Your task to perform on an android device: install app "HBO Max: Stream TV & Movies" Image 0: 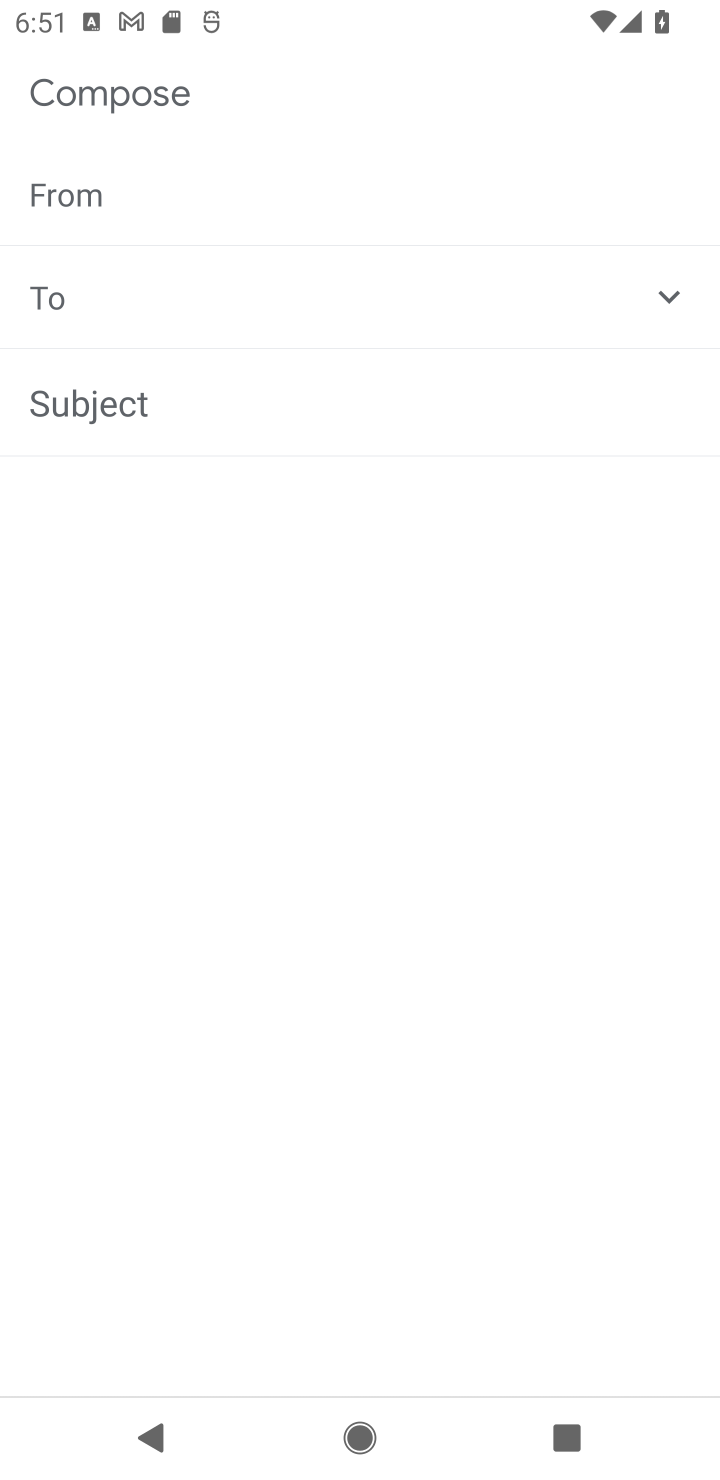
Step 0: press home button
Your task to perform on an android device: install app "HBO Max: Stream TV & Movies" Image 1: 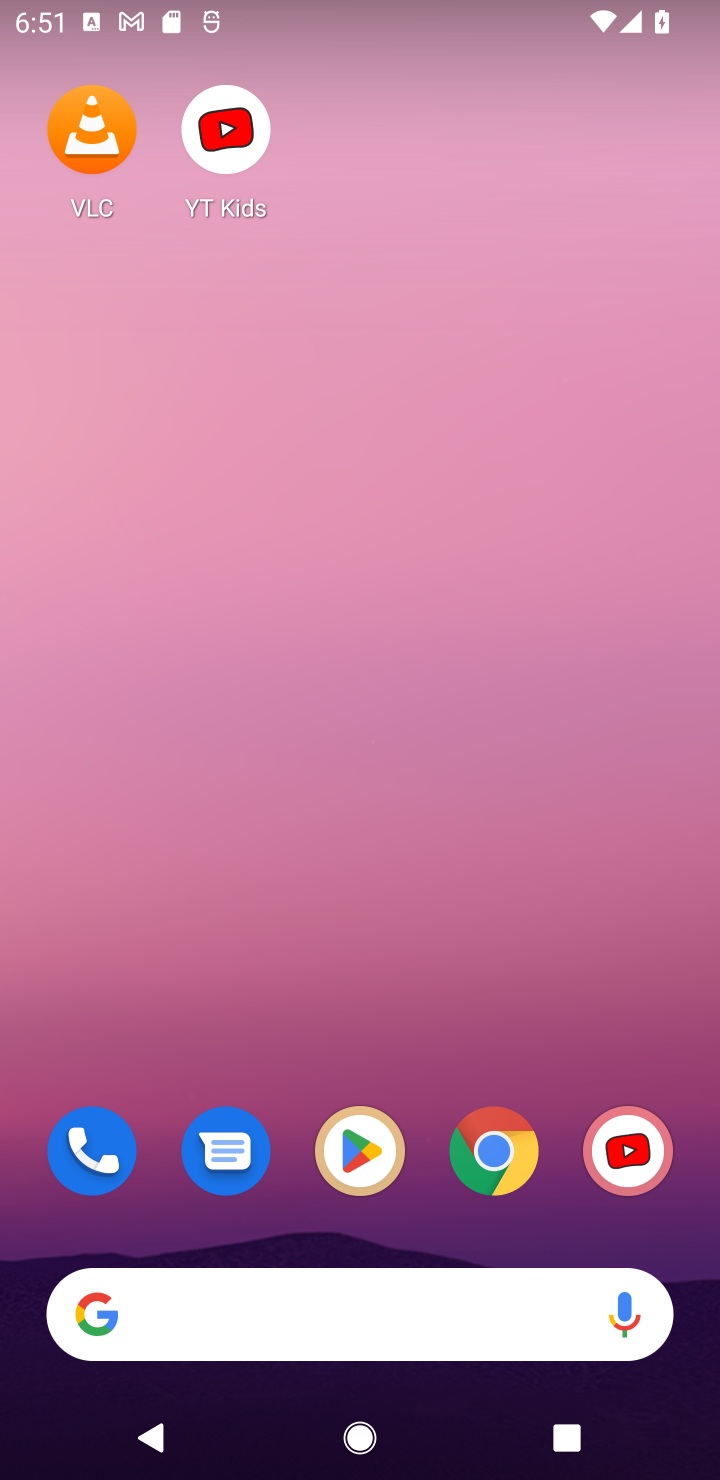
Step 1: press home button
Your task to perform on an android device: install app "HBO Max: Stream TV & Movies" Image 2: 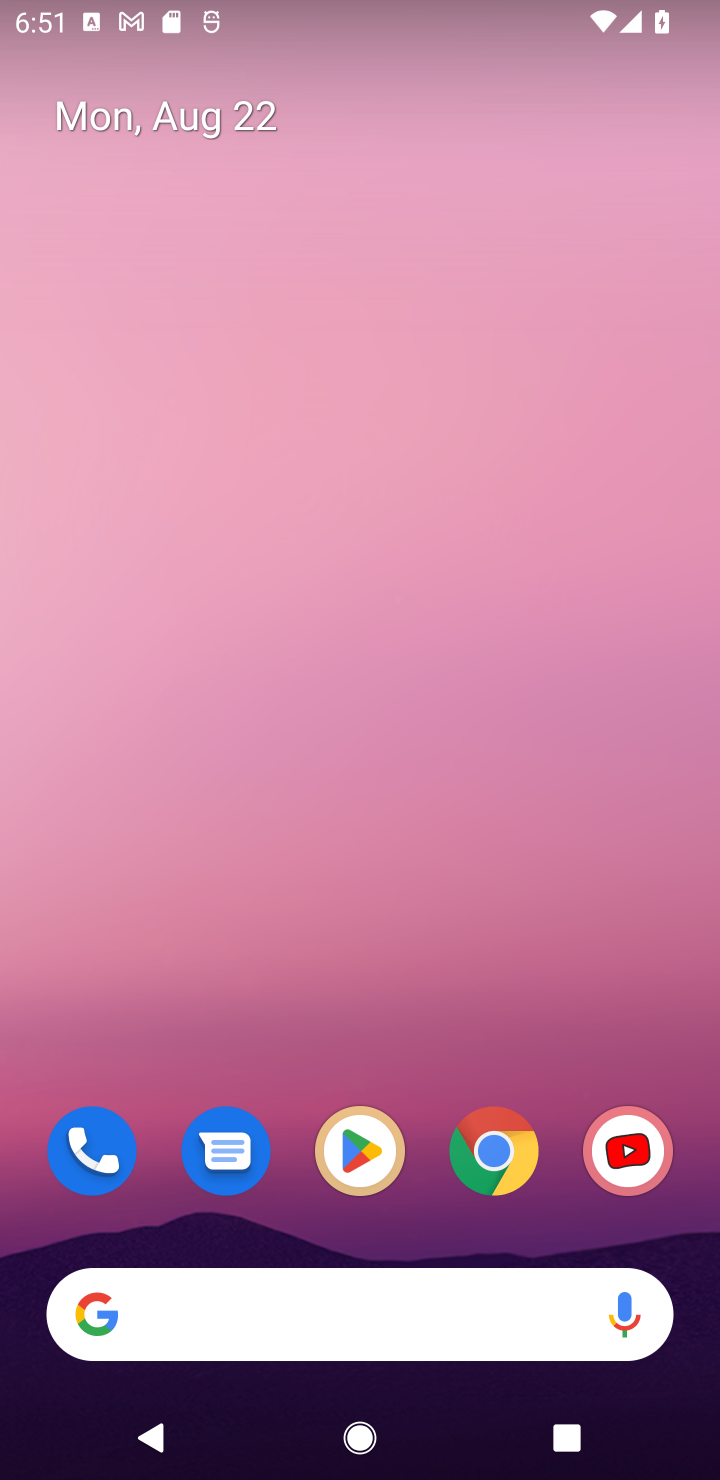
Step 2: click (358, 1138)
Your task to perform on an android device: install app "HBO Max: Stream TV & Movies" Image 3: 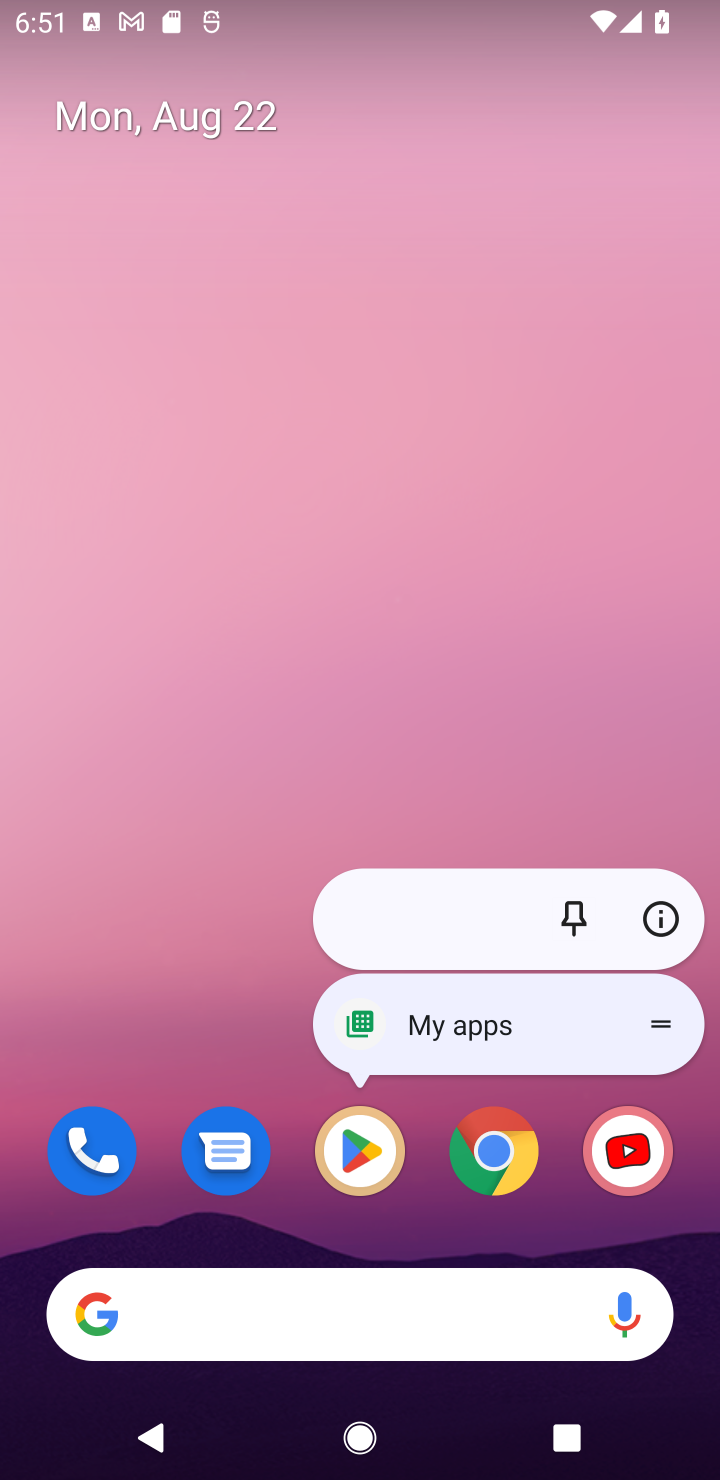
Step 3: click (360, 1141)
Your task to perform on an android device: install app "HBO Max: Stream TV & Movies" Image 4: 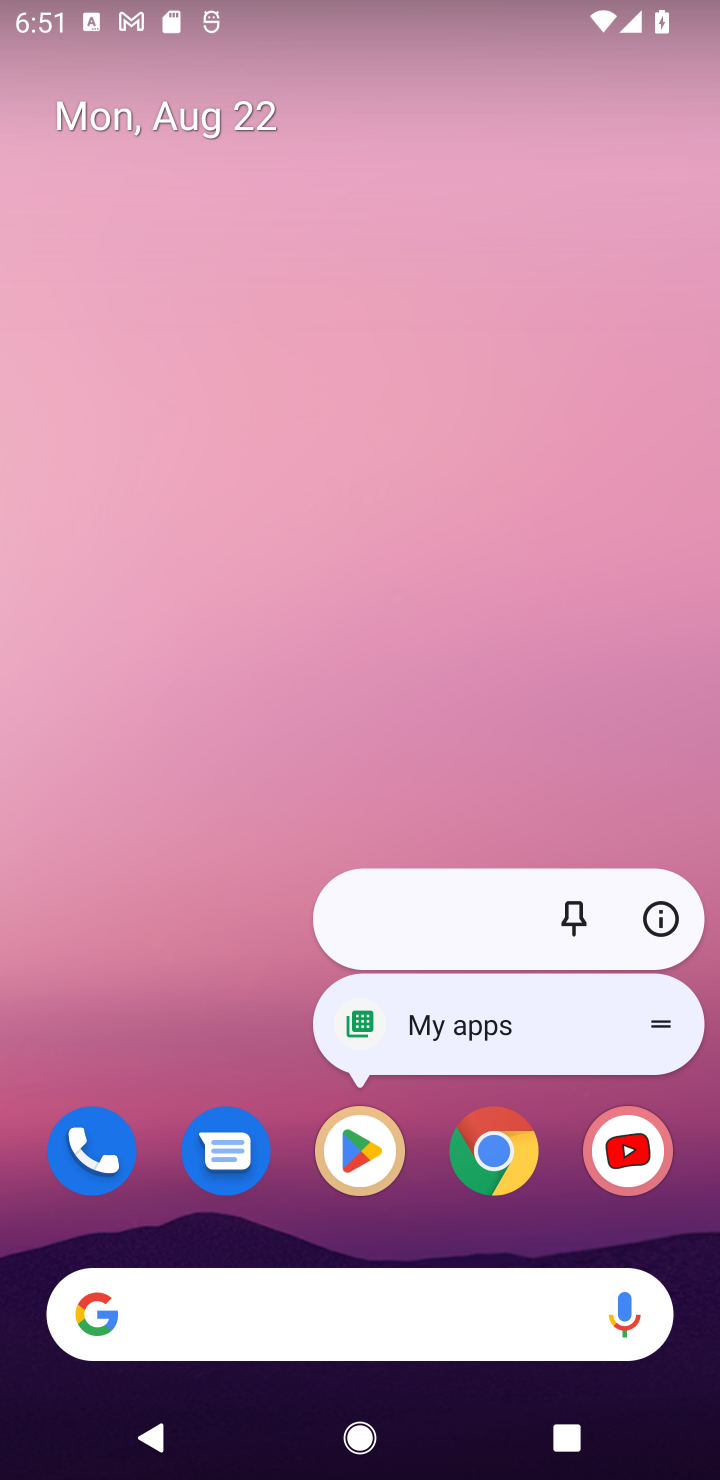
Step 4: click (360, 1141)
Your task to perform on an android device: install app "HBO Max: Stream TV & Movies" Image 5: 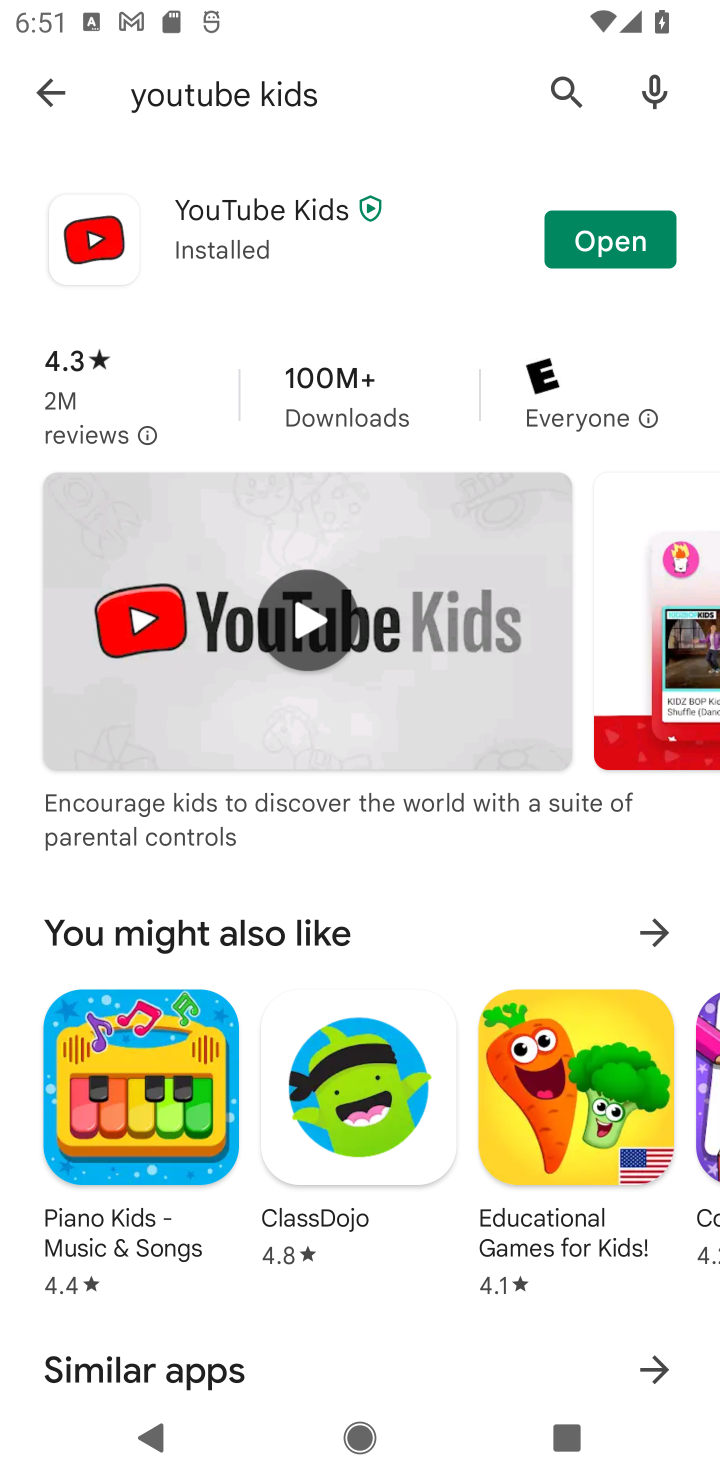
Step 5: click (561, 82)
Your task to perform on an android device: install app "HBO Max: Stream TV & Movies" Image 6: 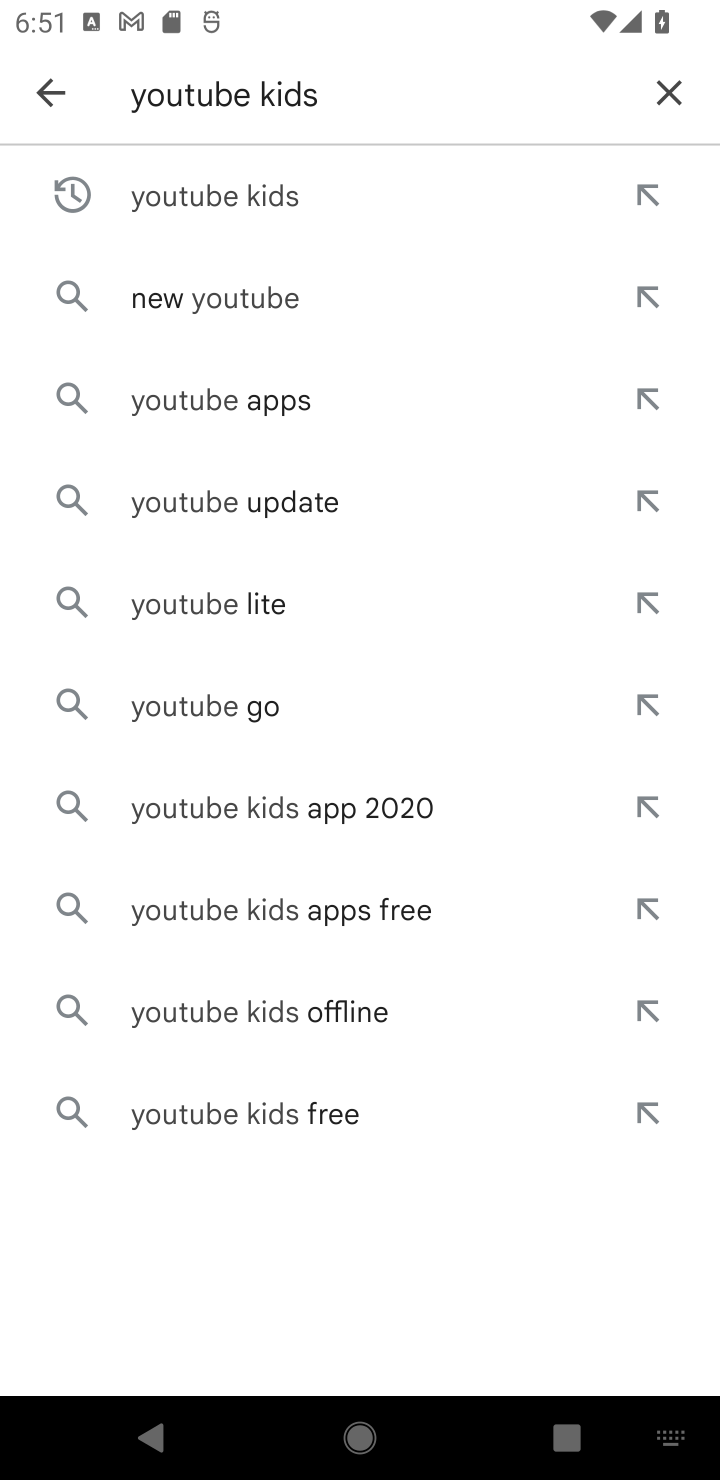
Step 6: click (676, 90)
Your task to perform on an android device: install app "HBO Max: Stream TV & Movies" Image 7: 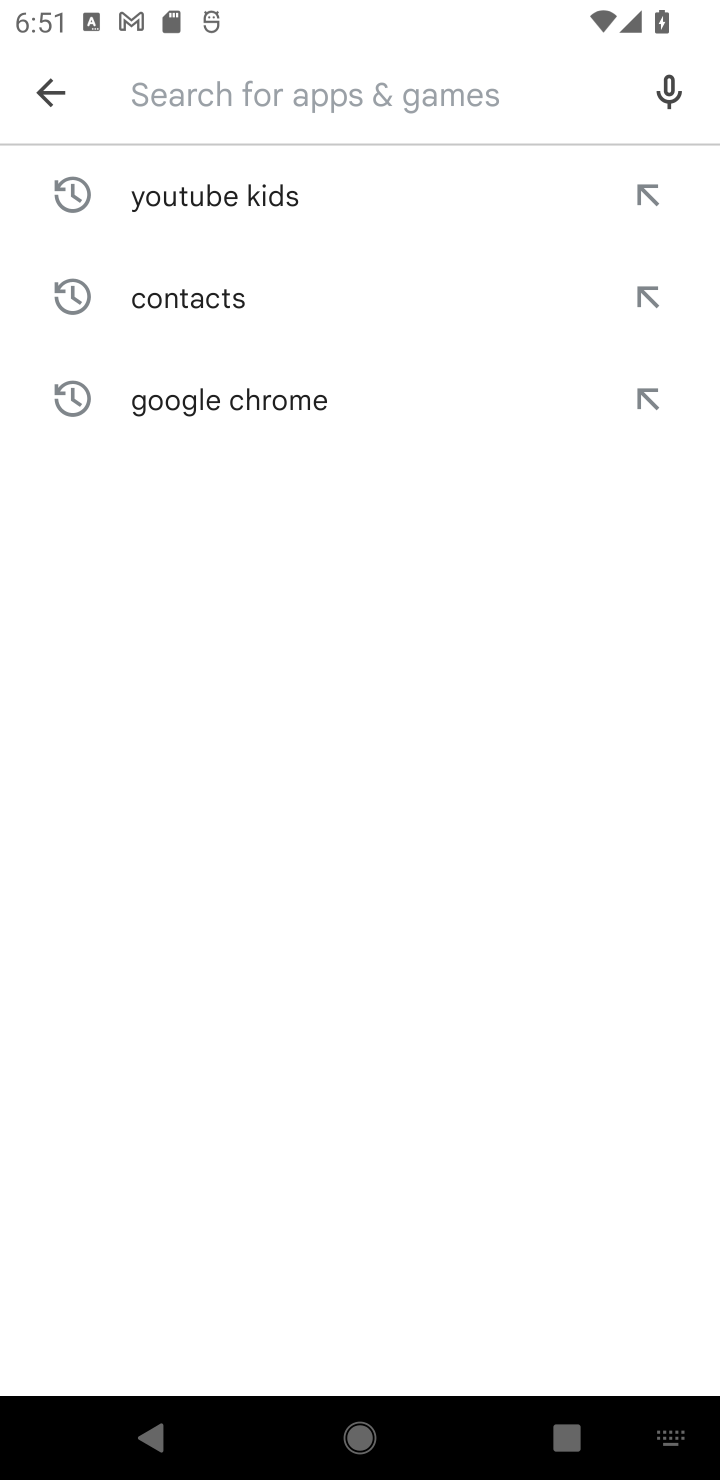
Step 7: type "HBO Max: Stream TV & Movies"
Your task to perform on an android device: install app "HBO Max: Stream TV & Movies" Image 8: 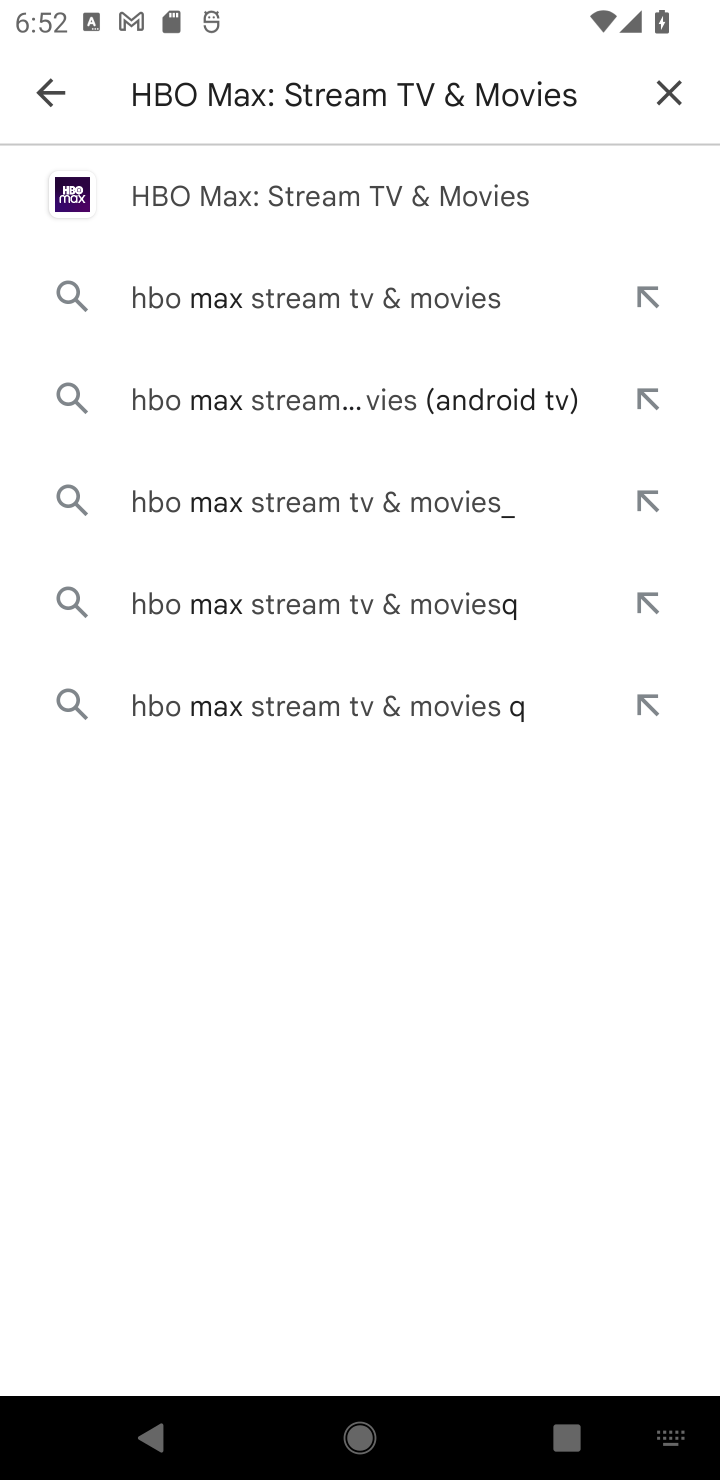
Step 8: click (360, 193)
Your task to perform on an android device: install app "HBO Max: Stream TV & Movies" Image 9: 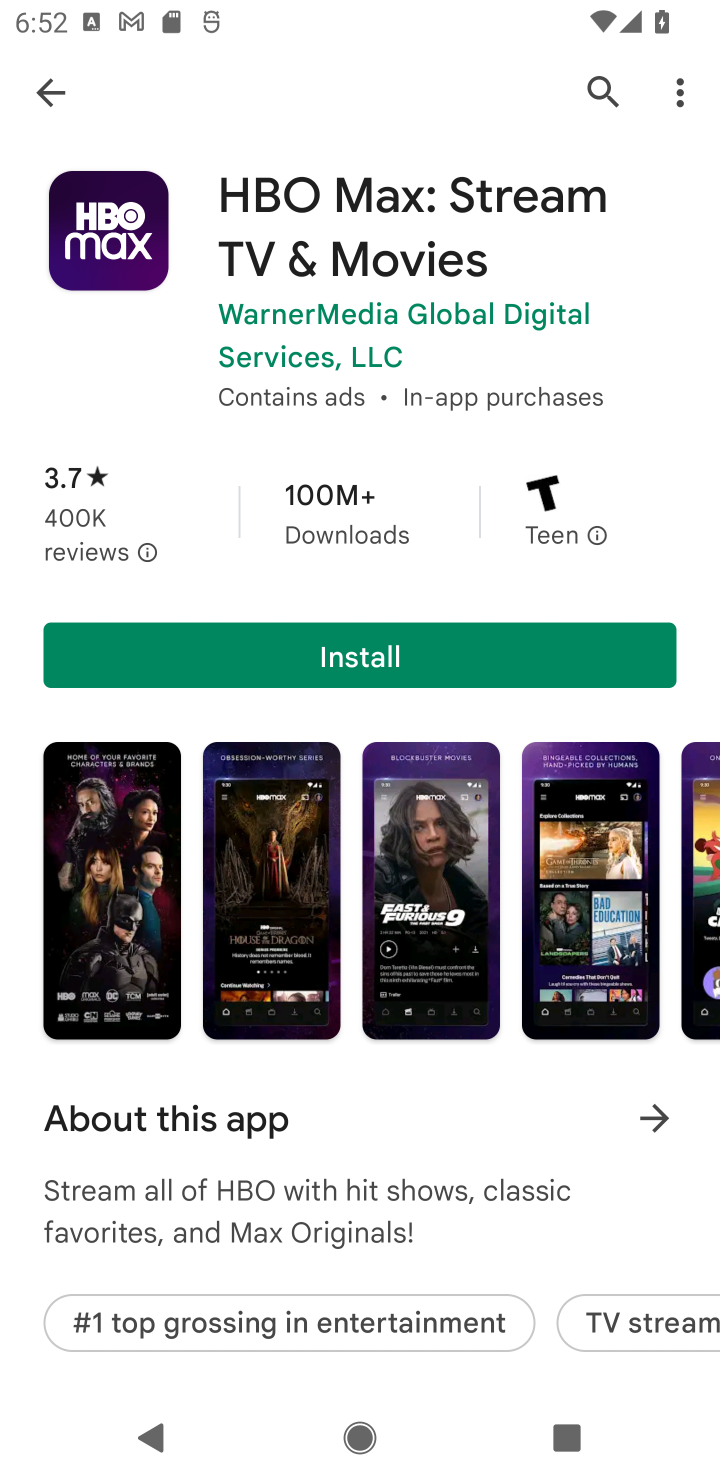
Step 9: click (380, 658)
Your task to perform on an android device: install app "HBO Max: Stream TV & Movies" Image 10: 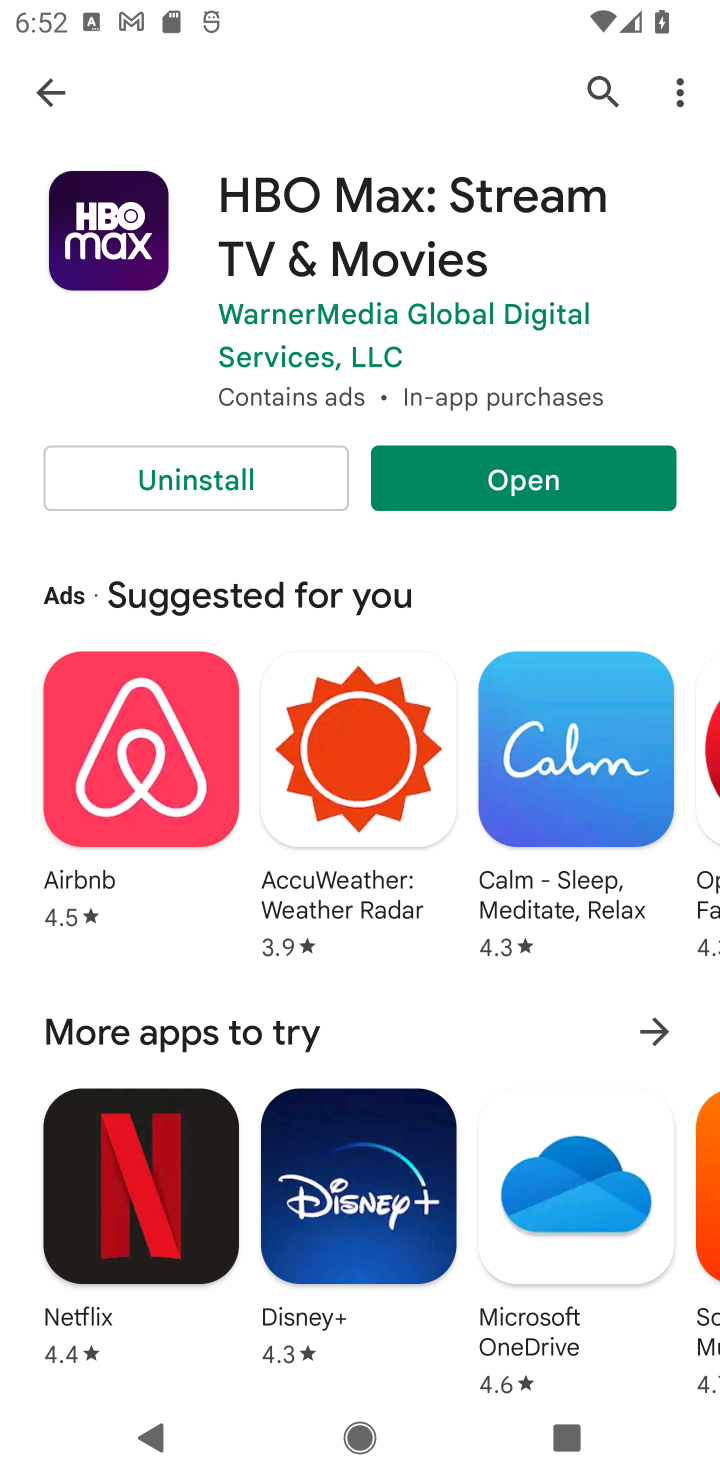
Step 10: task complete